Your task to perform on an android device: turn on wifi Image 0: 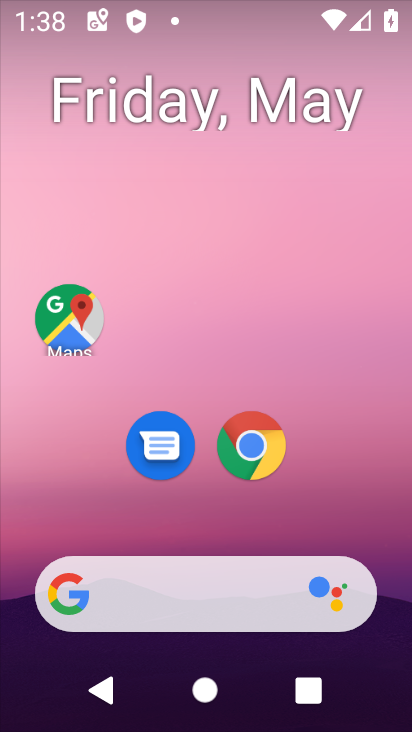
Step 0: drag from (397, 612) to (297, 196)
Your task to perform on an android device: turn on wifi Image 1: 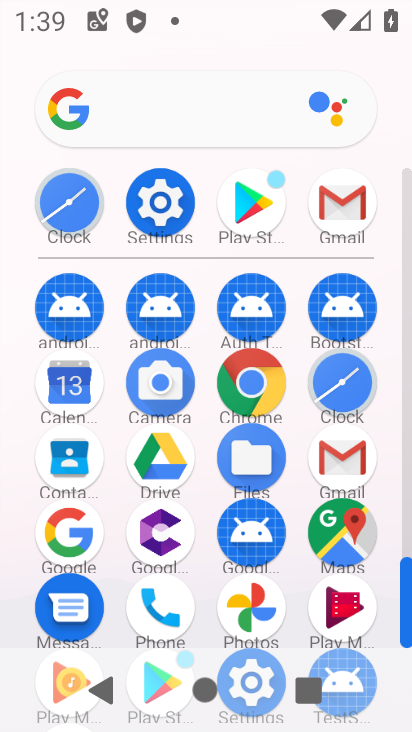
Step 1: drag from (408, 542) to (406, 497)
Your task to perform on an android device: turn on wifi Image 2: 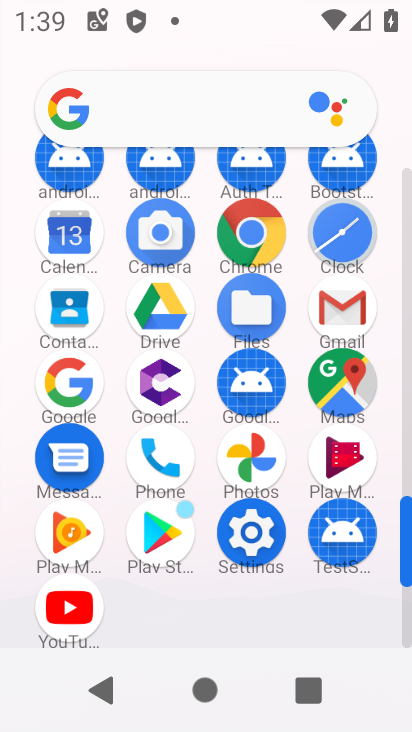
Step 2: click (249, 532)
Your task to perform on an android device: turn on wifi Image 3: 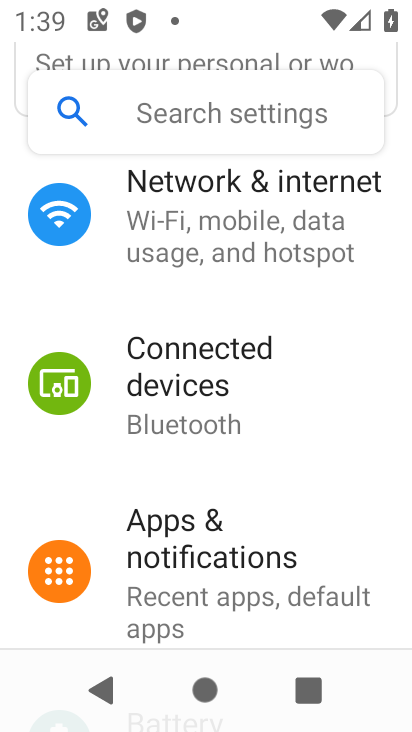
Step 3: click (194, 205)
Your task to perform on an android device: turn on wifi Image 4: 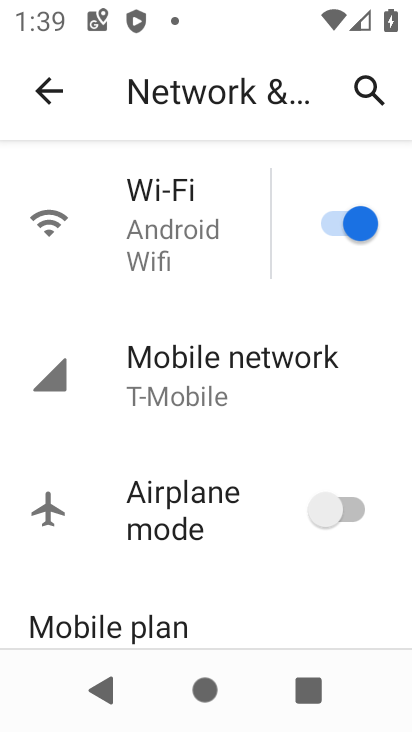
Step 4: task complete